Your task to perform on an android device: turn on javascript in the chrome app Image 0: 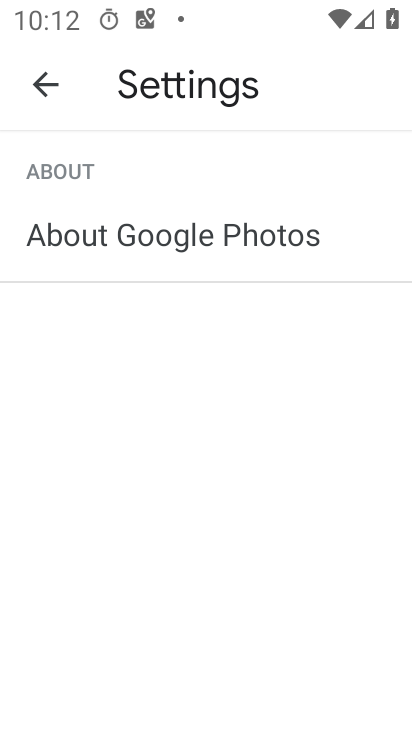
Step 0: press home button
Your task to perform on an android device: turn on javascript in the chrome app Image 1: 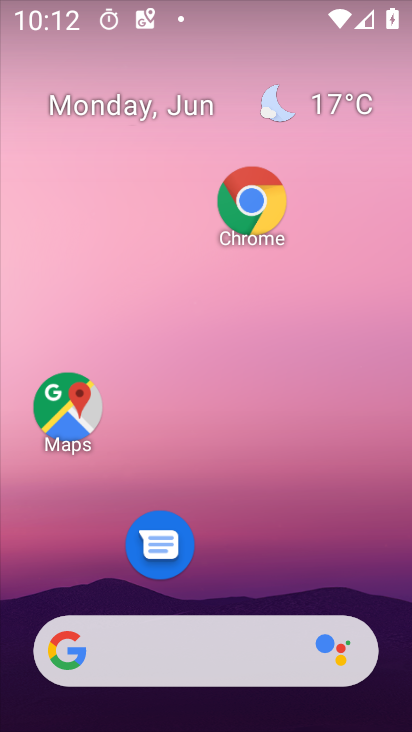
Step 1: click (266, 226)
Your task to perform on an android device: turn on javascript in the chrome app Image 2: 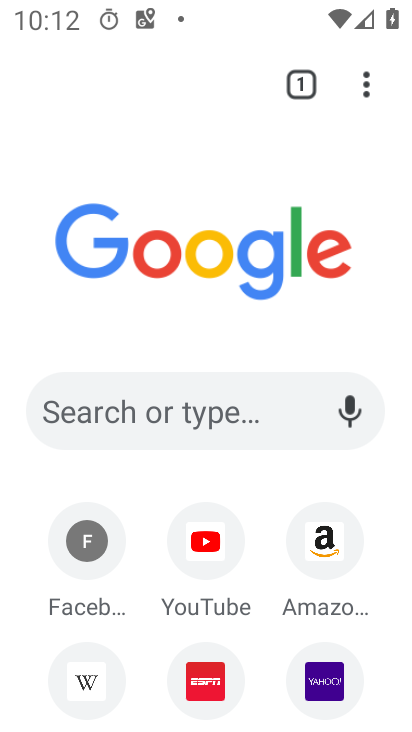
Step 2: click (365, 78)
Your task to perform on an android device: turn on javascript in the chrome app Image 3: 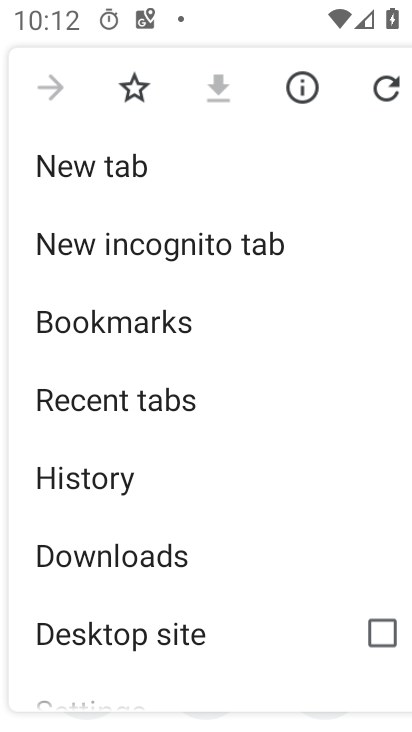
Step 3: drag from (215, 618) to (124, 198)
Your task to perform on an android device: turn on javascript in the chrome app Image 4: 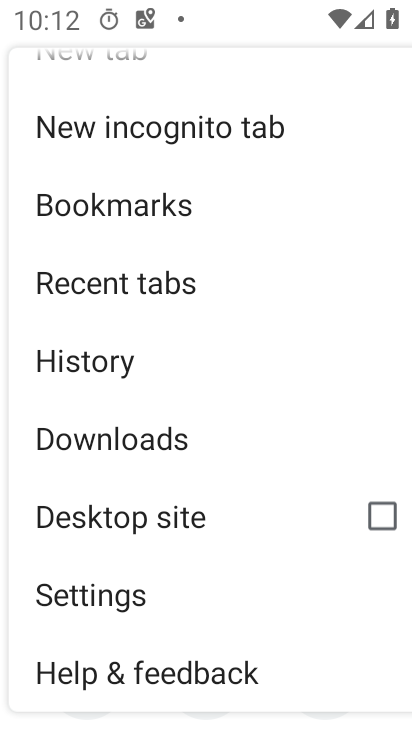
Step 4: click (93, 571)
Your task to perform on an android device: turn on javascript in the chrome app Image 5: 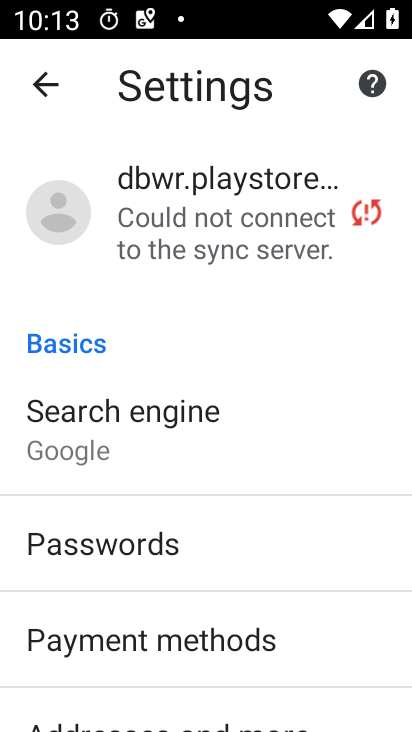
Step 5: drag from (239, 607) to (144, 14)
Your task to perform on an android device: turn on javascript in the chrome app Image 6: 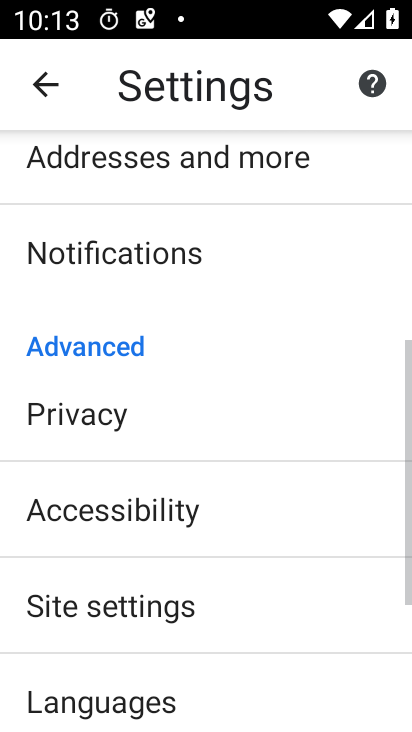
Step 6: click (92, 589)
Your task to perform on an android device: turn on javascript in the chrome app Image 7: 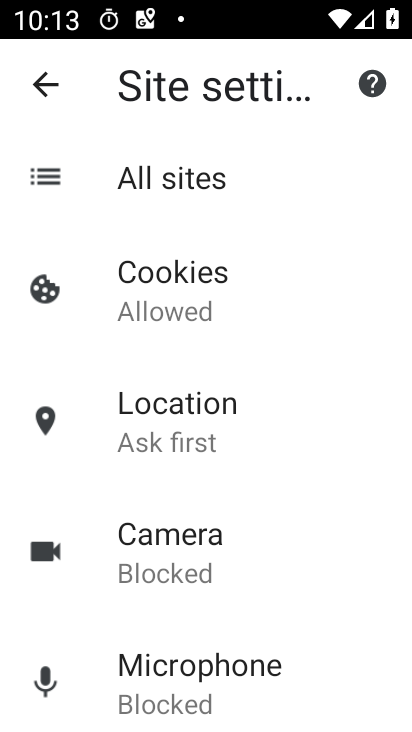
Step 7: drag from (240, 594) to (241, 229)
Your task to perform on an android device: turn on javascript in the chrome app Image 8: 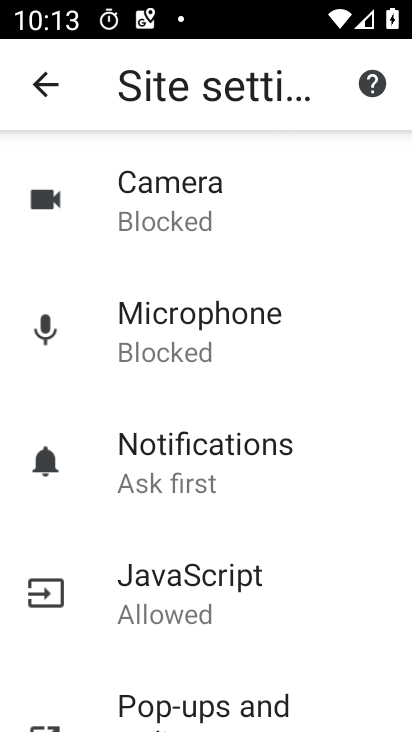
Step 8: click (183, 583)
Your task to perform on an android device: turn on javascript in the chrome app Image 9: 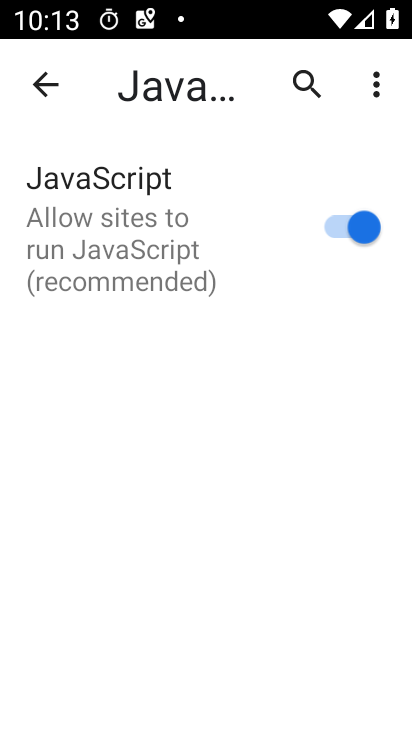
Step 9: task complete